Your task to perform on an android device: turn pop-ups on in chrome Image 0: 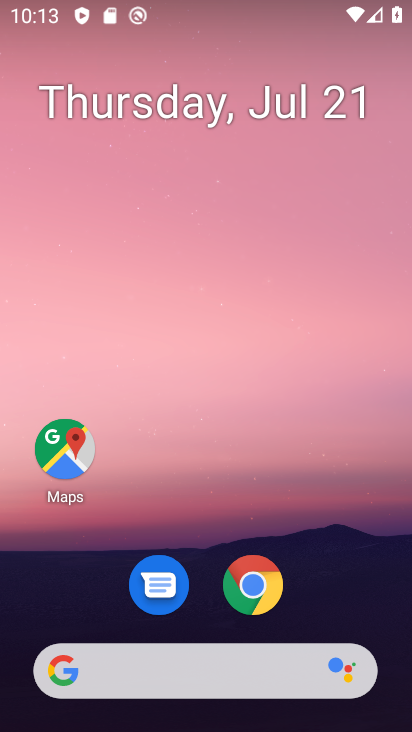
Step 0: press home button
Your task to perform on an android device: turn pop-ups on in chrome Image 1: 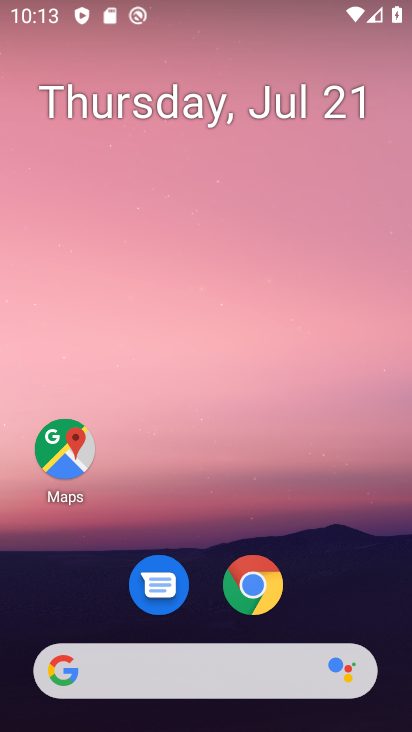
Step 1: click (249, 590)
Your task to perform on an android device: turn pop-ups on in chrome Image 2: 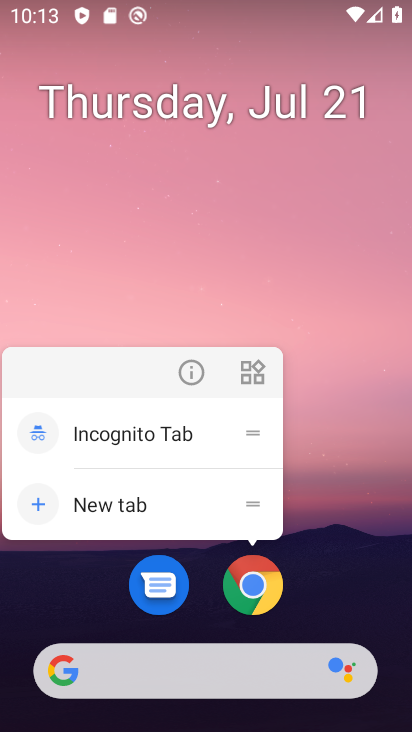
Step 2: click (257, 582)
Your task to perform on an android device: turn pop-ups on in chrome Image 3: 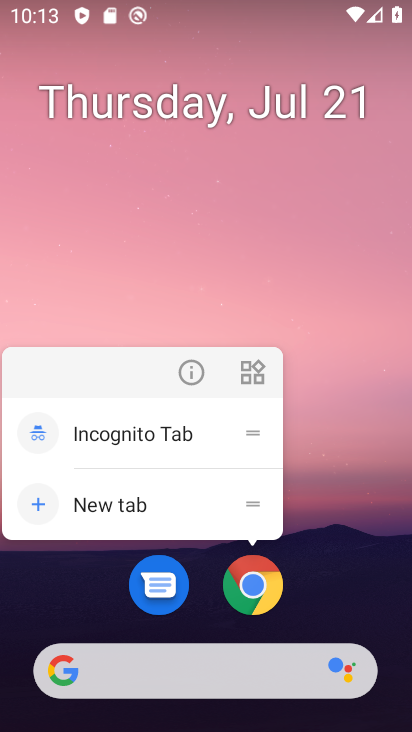
Step 3: click (251, 590)
Your task to perform on an android device: turn pop-ups on in chrome Image 4: 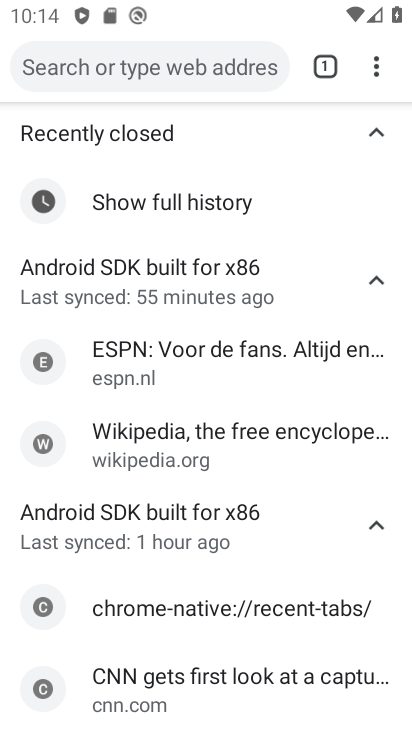
Step 4: drag from (376, 69) to (247, 561)
Your task to perform on an android device: turn pop-ups on in chrome Image 5: 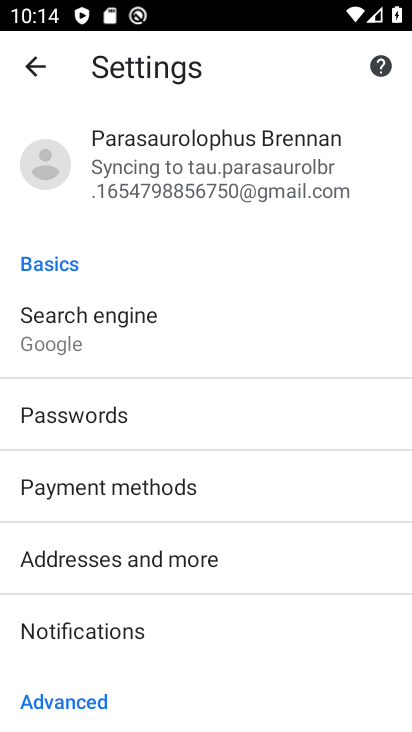
Step 5: drag from (187, 635) to (240, 225)
Your task to perform on an android device: turn pop-ups on in chrome Image 6: 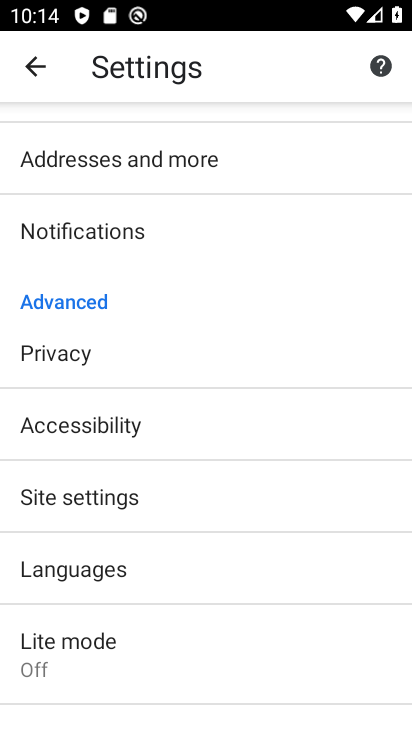
Step 6: click (91, 497)
Your task to perform on an android device: turn pop-ups on in chrome Image 7: 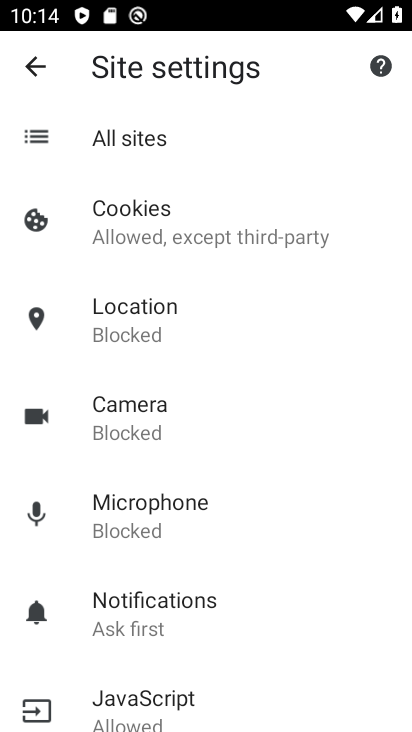
Step 7: drag from (220, 647) to (241, 331)
Your task to perform on an android device: turn pop-ups on in chrome Image 8: 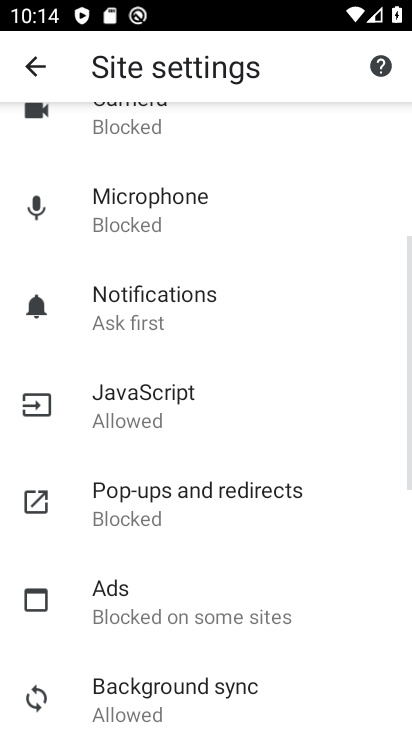
Step 8: click (140, 510)
Your task to perform on an android device: turn pop-ups on in chrome Image 9: 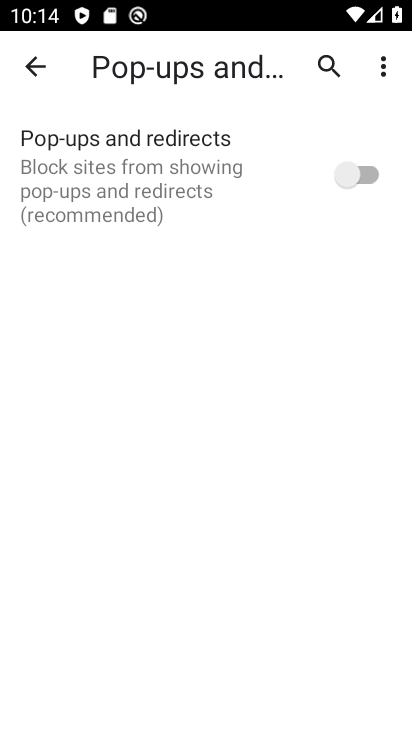
Step 9: click (367, 170)
Your task to perform on an android device: turn pop-ups on in chrome Image 10: 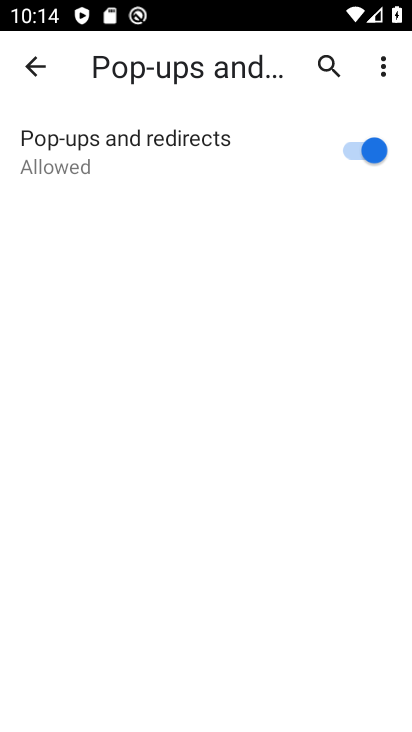
Step 10: task complete